Your task to perform on an android device: turn off location Image 0: 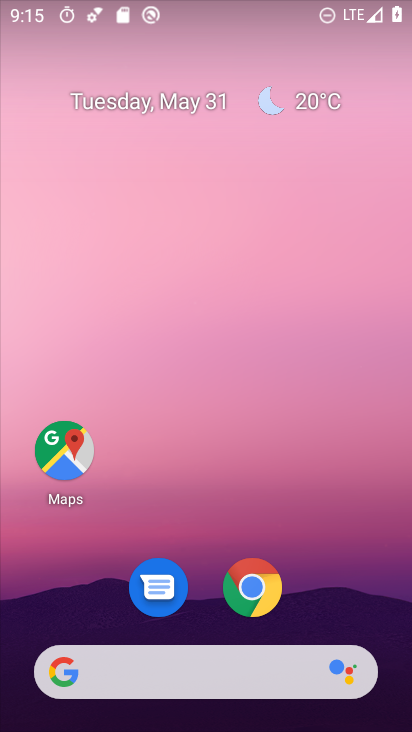
Step 0: drag from (206, 625) to (247, 38)
Your task to perform on an android device: turn off location Image 1: 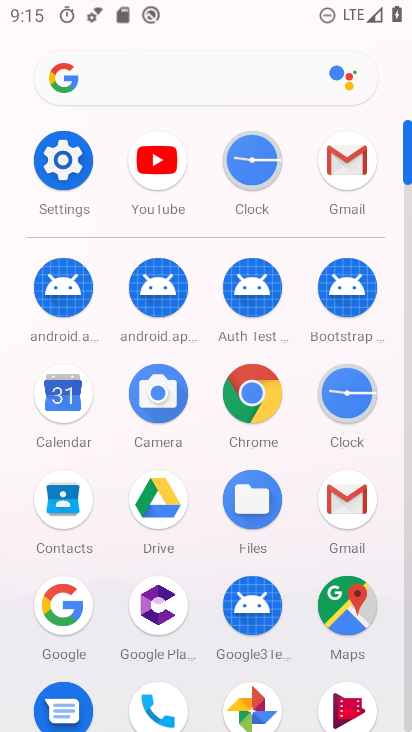
Step 1: click (68, 173)
Your task to perform on an android device: turn off location Image 2: 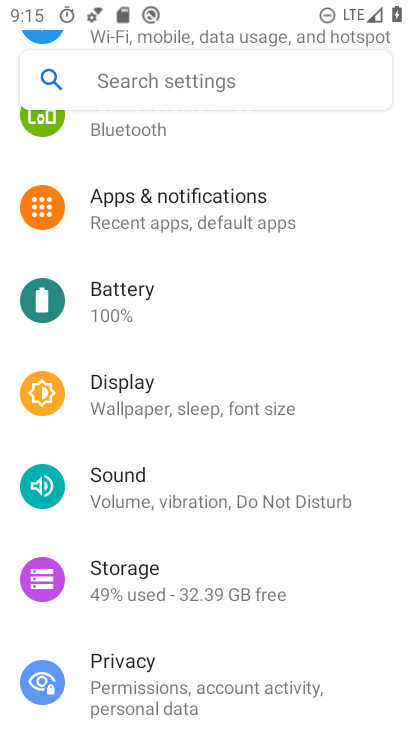
Step 2: drag from (178, 588) to (199, 87)
Your task to perform on an android device: turn off location Image 3: 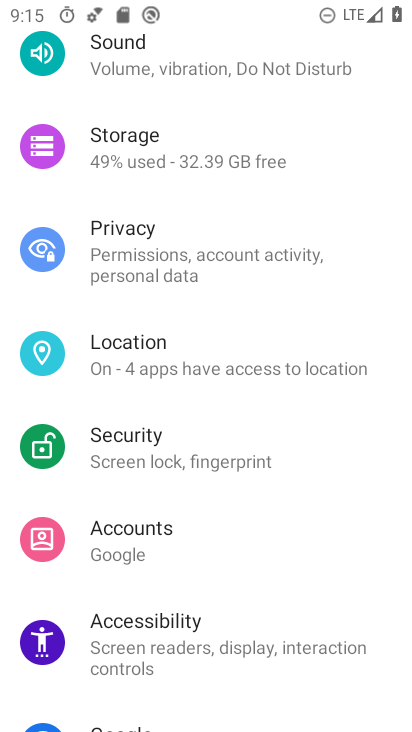
Step 3: click (101, 363)
Your task to perform on an android device: turn off location Image 4: 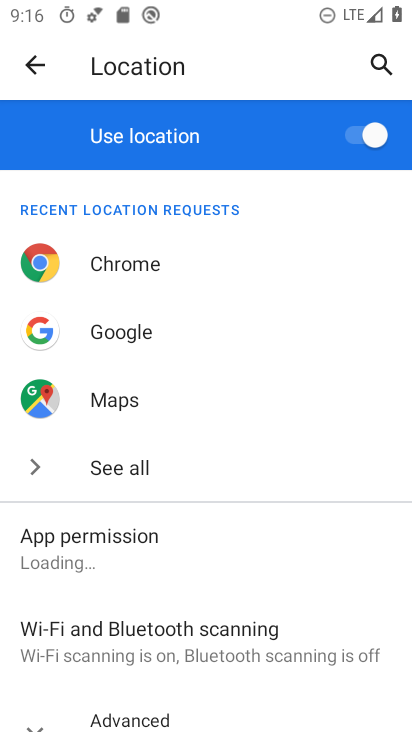
Step 4: click (366, 138)
Your task to perform on an android device: turn off location Image 5: 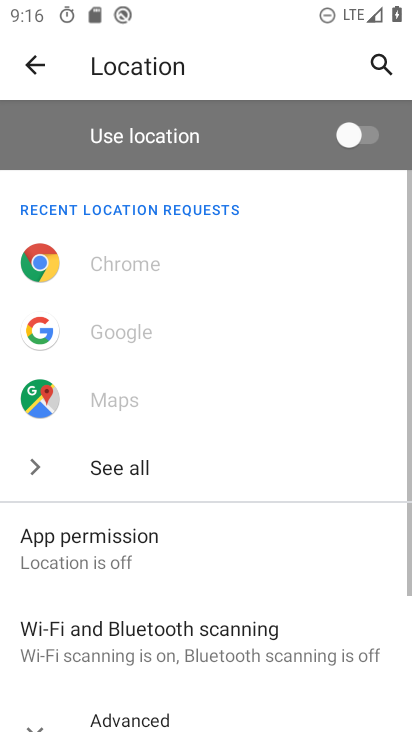
Step 5: task complete